Your task to perform on an android device: turn off notifications settings in the gmail app Image 0: 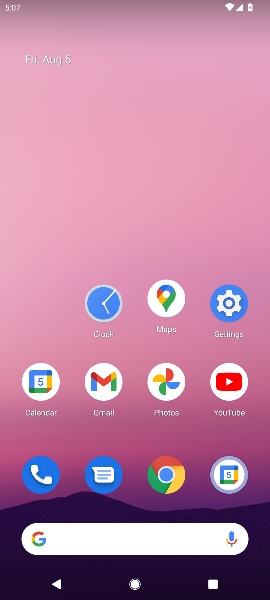
Step 0: click (103, 380)
Your task to perform on an android device: turn off notifications settings in the gmail app Image 1: 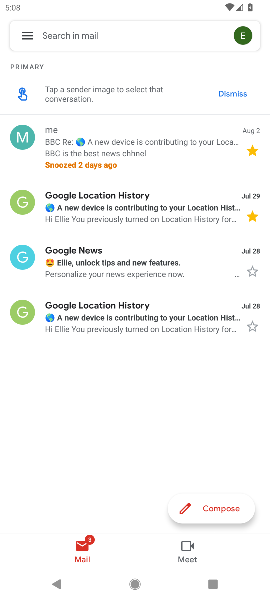
Step 1: click (23, 32)
Your task to perform on an android device: turn off notifications settings in the gmail app Image 2: 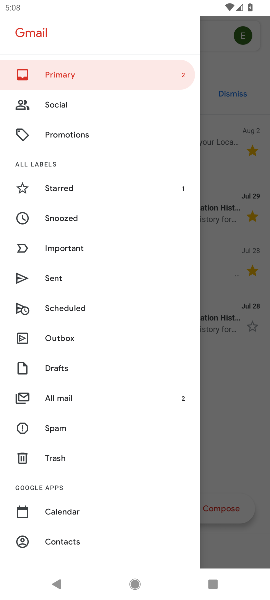
Step 2: drag from (114, 524) to (111, 307)
Your task to perform on an android device: turn off notifications settings in the gmail app Image 3: 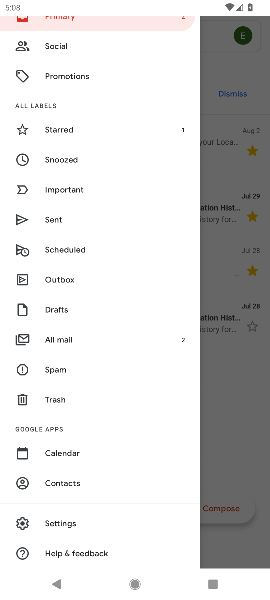
Step 3: click (42, 522)
Your task to perform on an android device: turn off notifications settings in the gmail app Image 4: 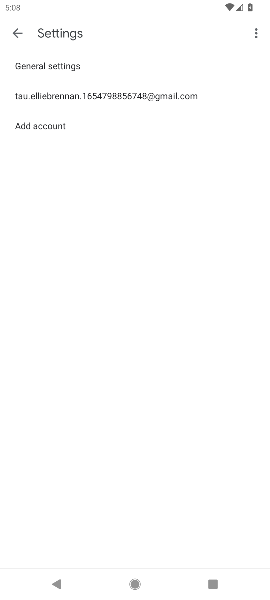
Step 4: click (36, 96)
Your task to perform on an android device: turn off notifications settings in the gmail app Image 5: 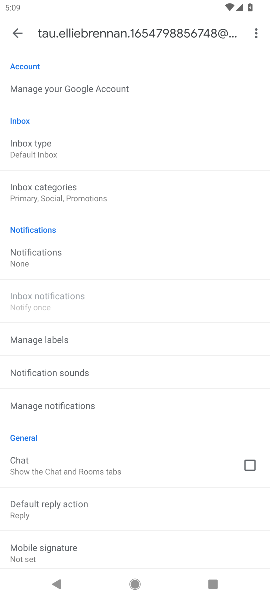
Step 5: click (39, 253)
Your task to perform on an android device: turn off notifications settings in the gmail app Image 6: 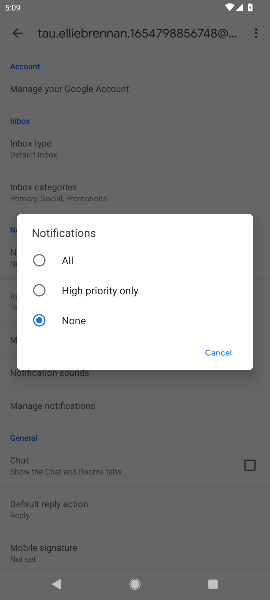
Step 6: task complete